Your task to perform on an android device: Open Reddit.com Image 0: 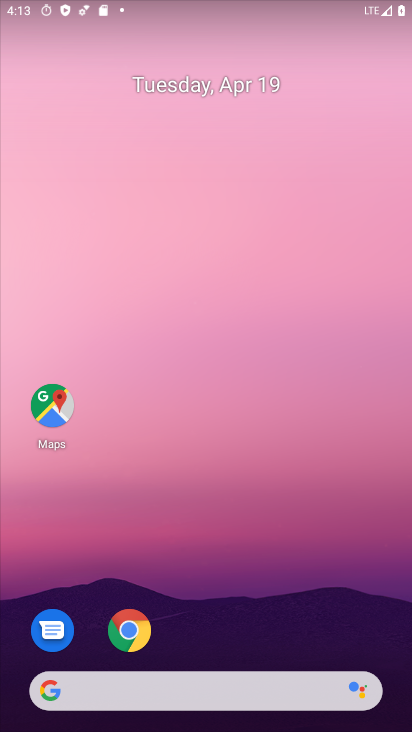
Step 0: click (181, 681)
Your task to perform on an android device: Open Reddit.com Image 1: 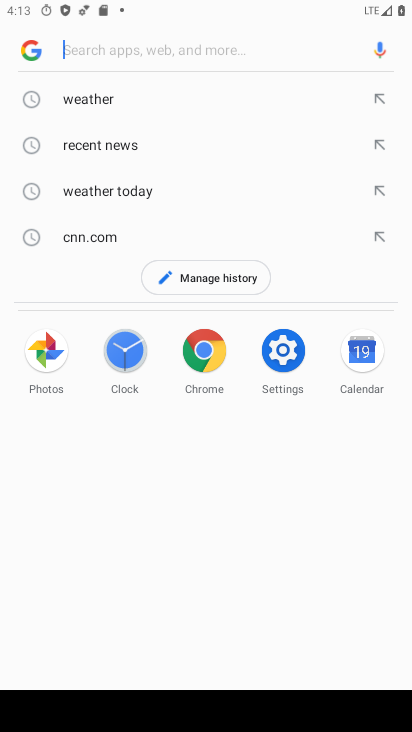
Step 1: type "Reddit.com"
Your task to perform on an android device: Open Reddit.com Image 2: 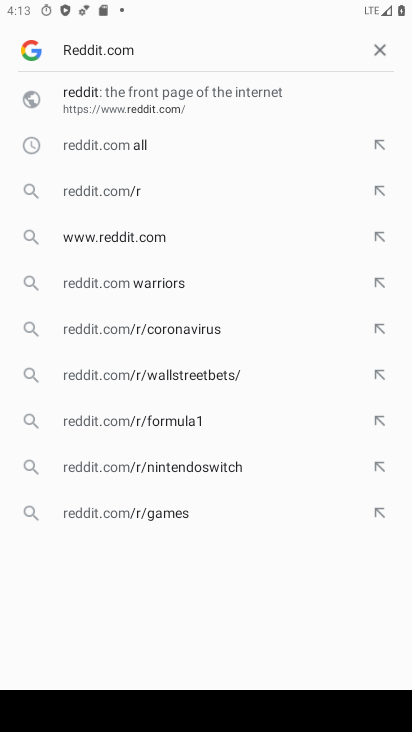
Step 2: click (187, 240)
Your task to perform on an android device: Open Reddit.com Image 3: 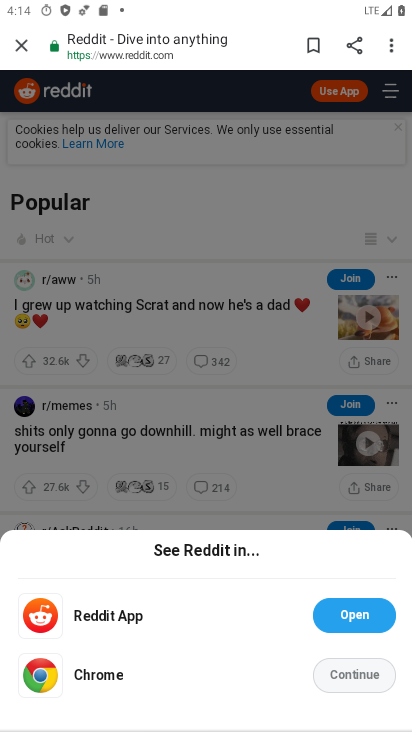
Step 3: click (361, 683)
Your task to perform on an android device: Open Reddit.com Image 4: 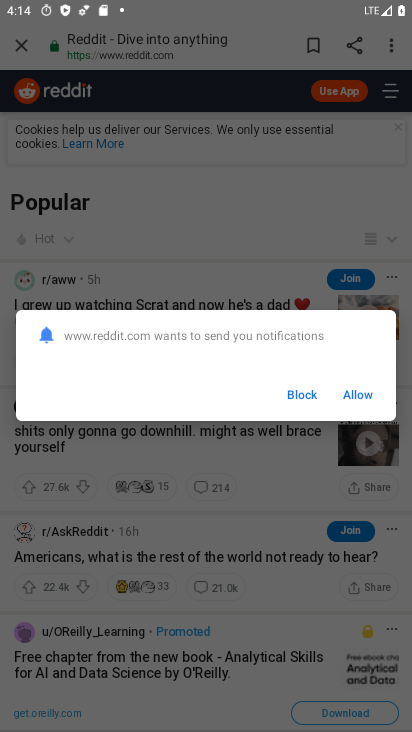
Step 4: task complete